Your task to perform on an android device: turn vacation reply on in the gmail app Image 0: 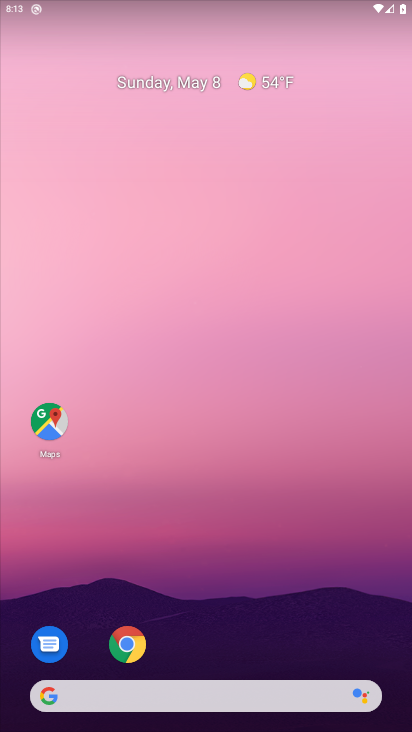
Step 0: drag from (161, 682) to (189, 342)
Your task to perform on an android device: turn vacation reply on in the gmail app Image 1: 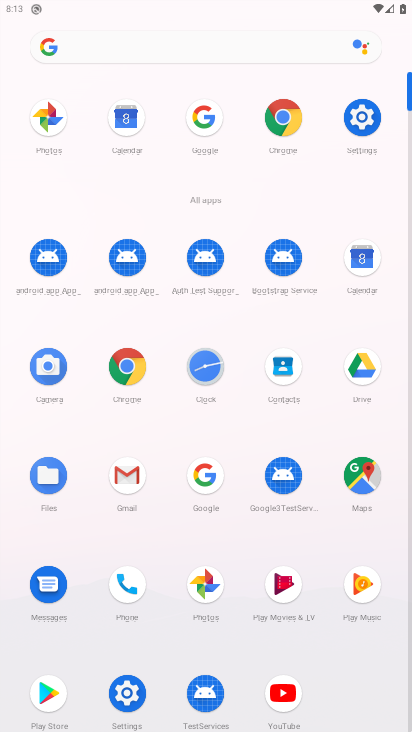
Step 1: click (127, 475)
Your task to perform on an android device: turn vacation reply on in the gmail app Image 2: 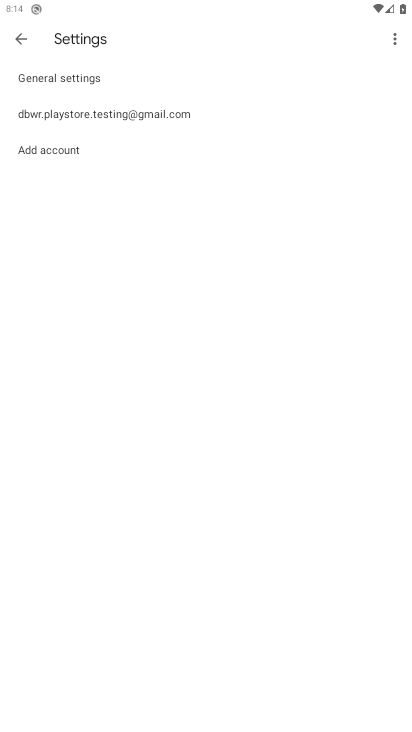
Step 2: click (128, 121)
Your task to perform on an android device: turn vacation reply on in the gmail app Image 3: 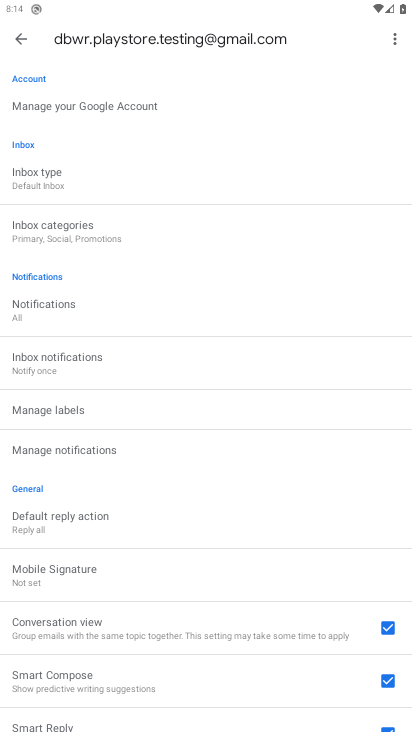
Step 3: drag from (141, 658) to (138, 397)
Your task to perform on an android device: turn vacation reply on in the gmail app Image 4: 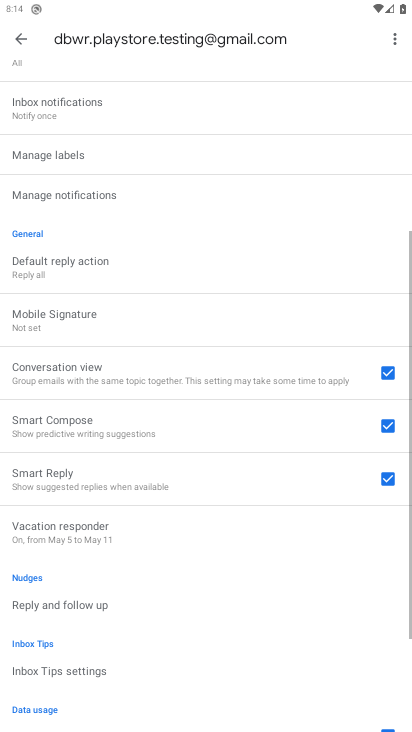
Step 4: drag from (84, 658) to (82, 355)
Your task to perform on an android device: turn vacation reply on in the gmail app Image 5: 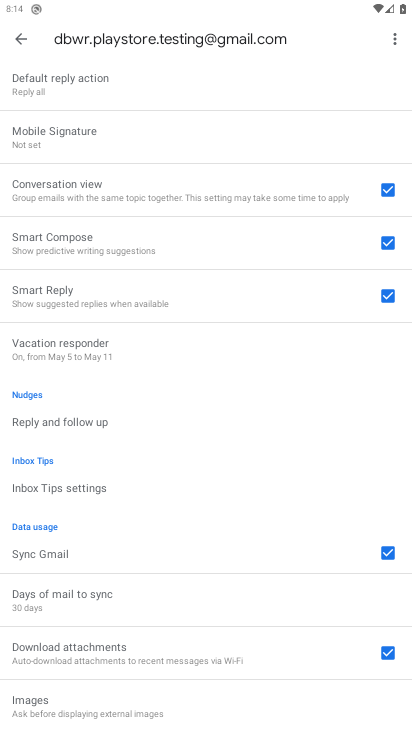
Step 5: drag from (46, 699) to (92, 380)
Your task to perform on an android device: turn vacation reply on in the gmail app Image 6: 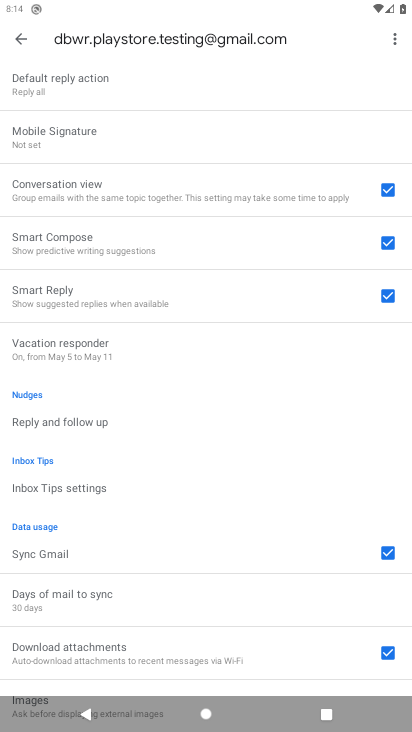
Step 6: click (87, 350)
Your task to perform on an android device: turn vacation reply on in the gmail app Image 7: 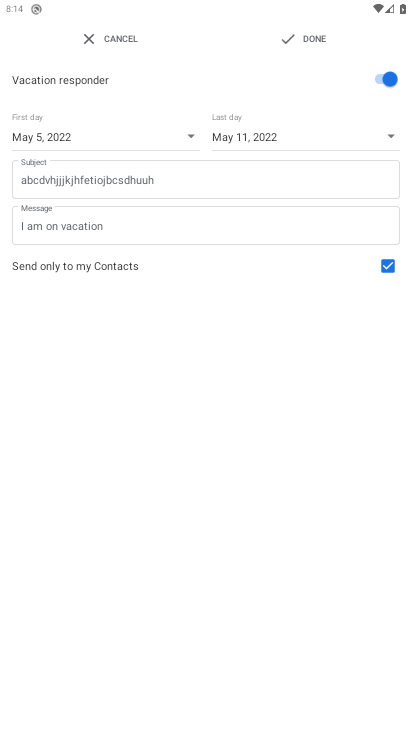
Step 7: click (311, 33)
Your task to perform on an android device: turn vacation reply on in the gmail app Image 8: 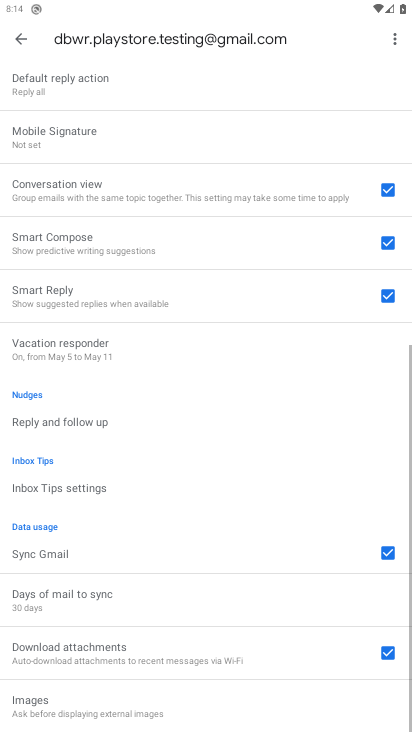
Step 8: task complete